Your task to perform on an android device: turn on data saver in the chrome app Image 0: 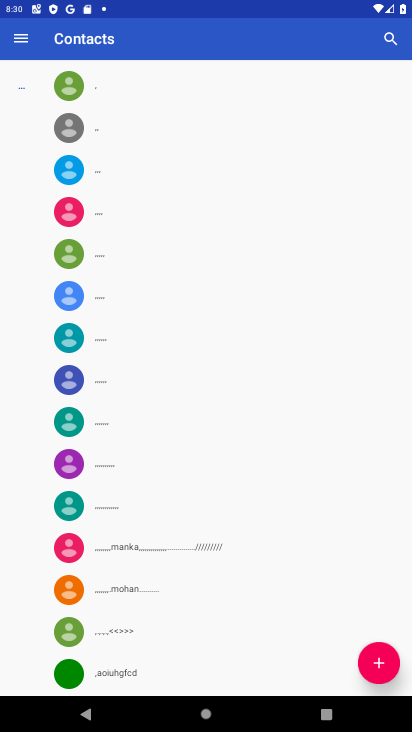
Step 0: press home button
Your task to perform on an android device: turn on data saver in the chrome app Image 1: 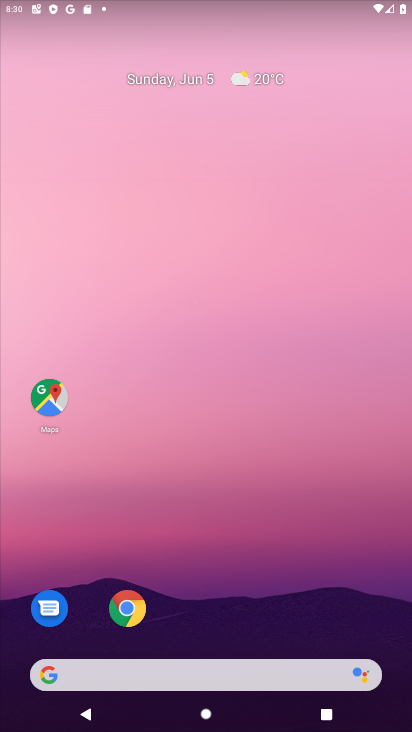
Step 1: click (115, 606)
Your task to perform on an android device: turn on data saver in the chrome app Image 2: 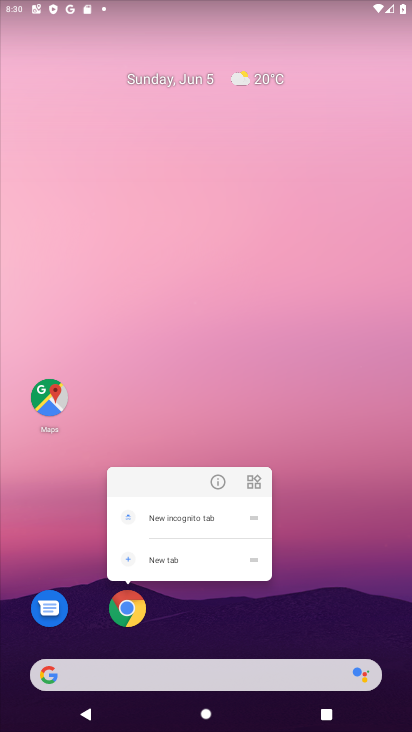
Step 2: click (129, 591)
Your task to perform on an android device: turn on data saver in the chrome app Image 3: 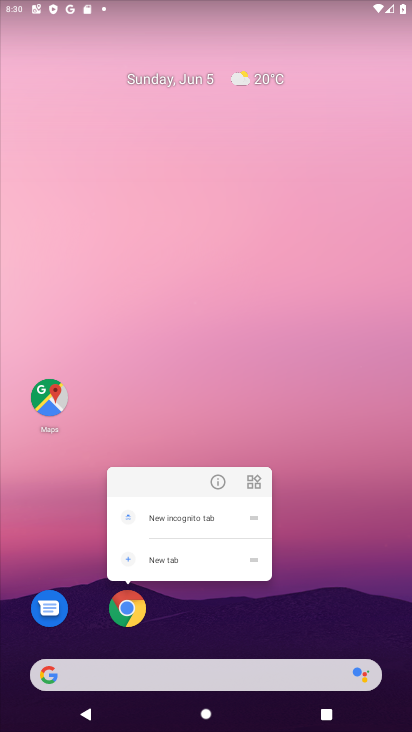
Step 3: click (129, 597)
Your task to perform on an android device: turn on data saver in the chrome app Image 4: 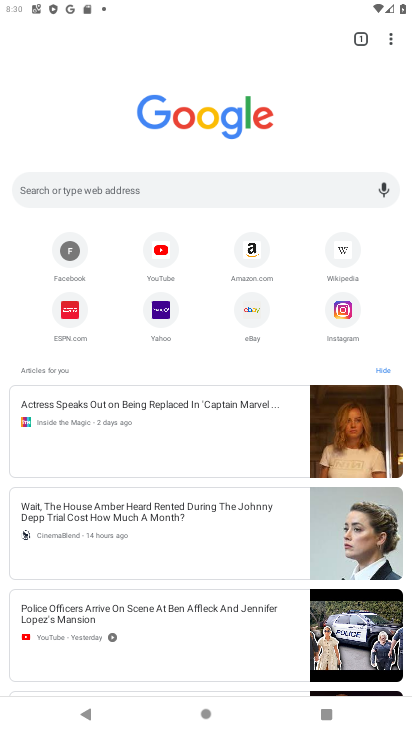
Step 4: click (389, 38)
Your task to perform on an android device: turn on data saver in the chrome app Image 5: 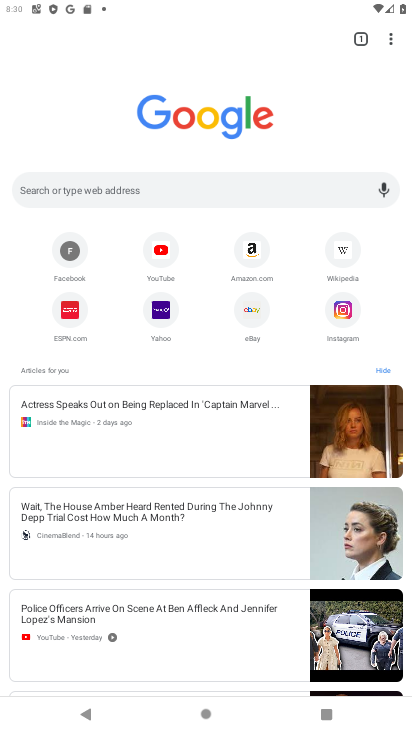
Step 5: click (399, 34)
Your task to perform on an android device: turn on data saver in the chrome app Image 6: 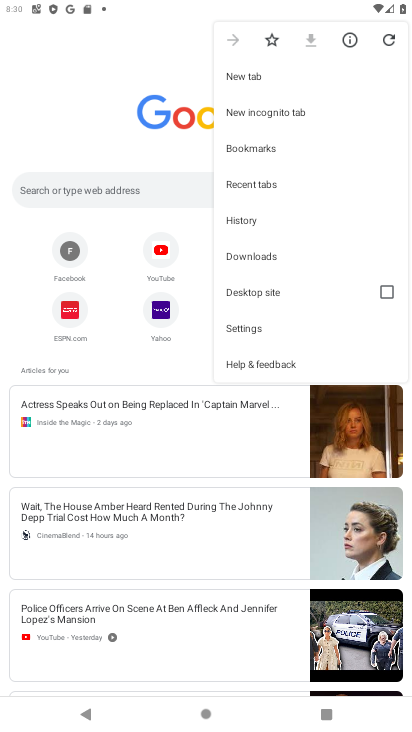
Step 6: click (234, 324)
Your task to perform on an android device: turn on data saver in the chrome app Image 7: 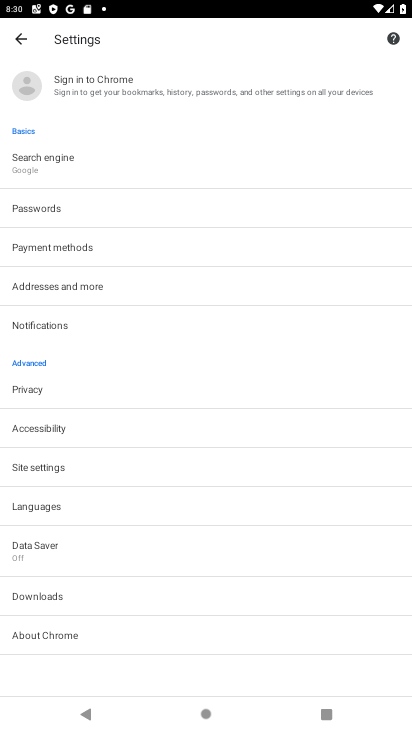
Step 7: click (41, 544)
Your task to perform on an android device: turn on data saver in the chrome app Image 8: 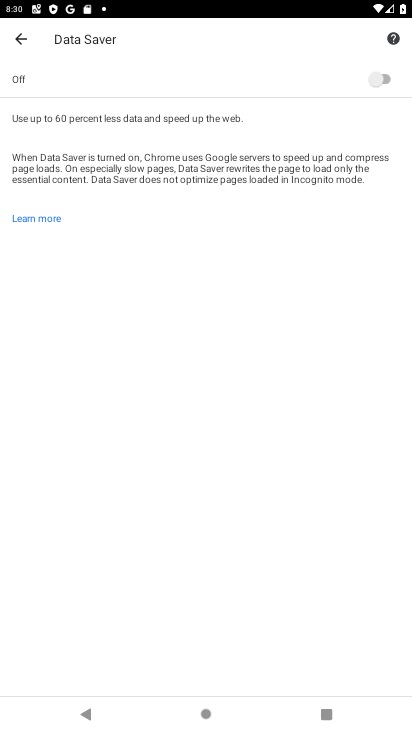
Step 8: click (370, 75)
Your task to perform on an android device: turn on data saver in the chrome app Image 9: 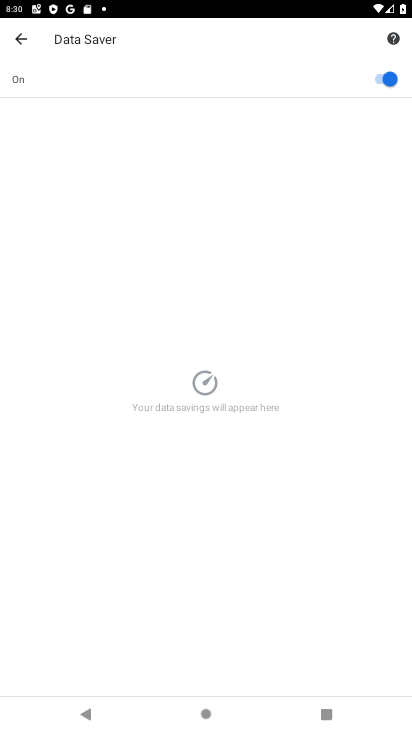
Step 9: task complete